Your task to perform on an android device: open app "Spotify" Image 0: 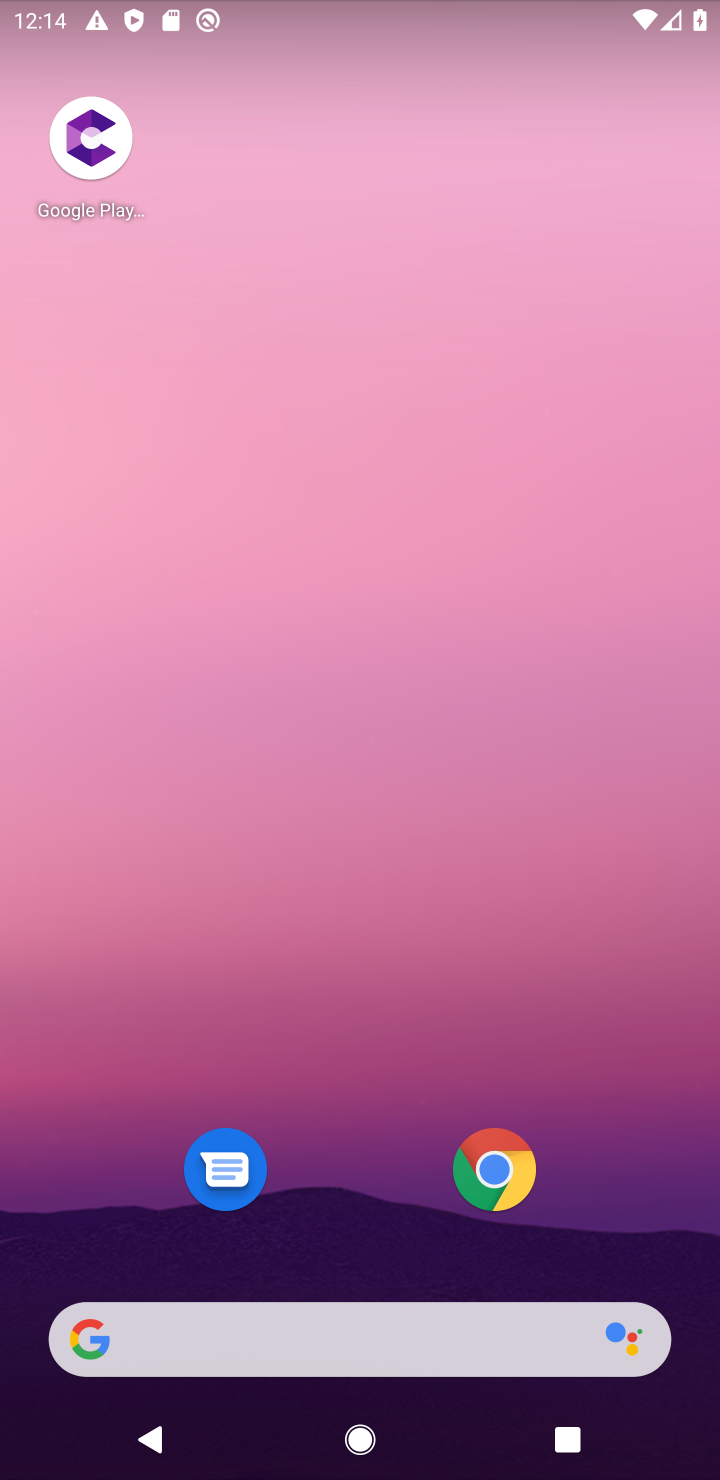
Step 0: drag from (338, 1305) to (340, 325)
Your task to perform on an android device: open app "Spotify" Image 1: 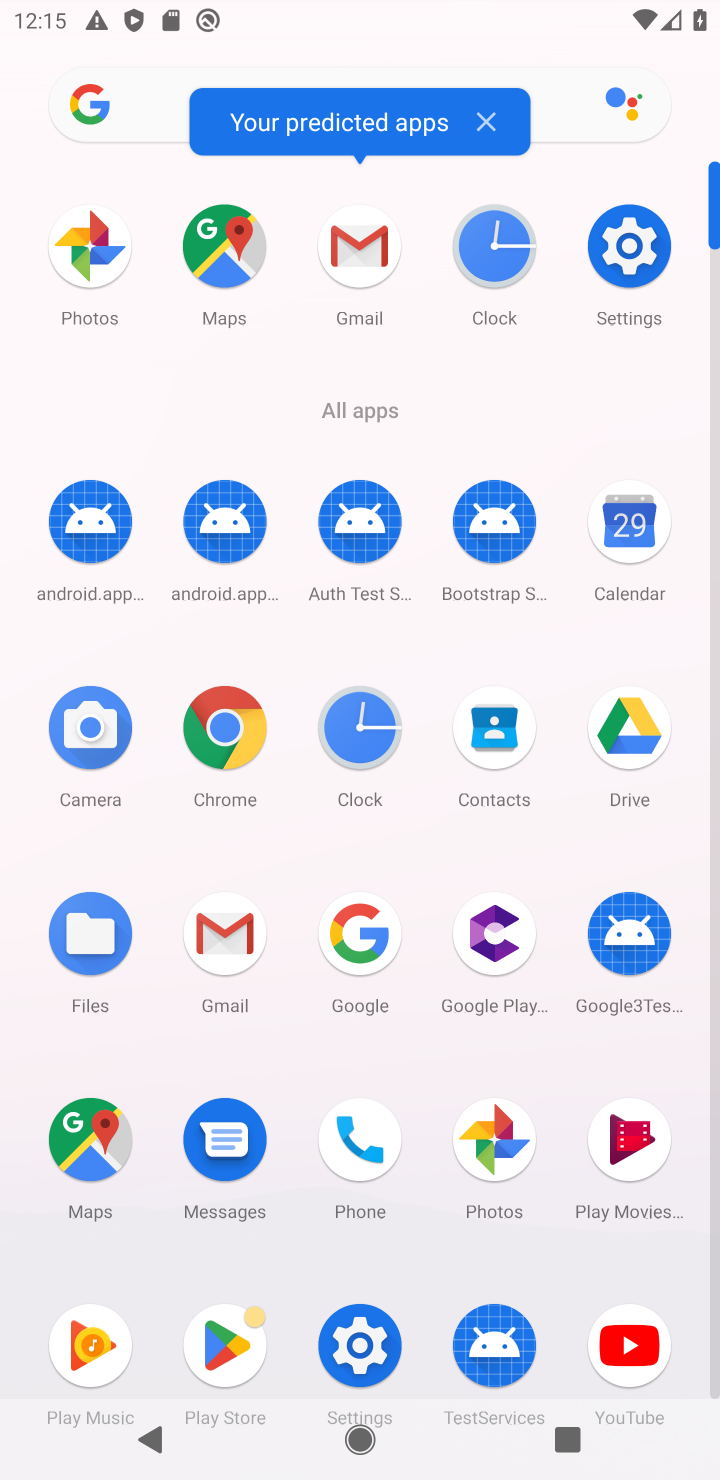
Step 1: click (209, 1359)
Your task to perform on an android device: open app "Spotify" Image 2: 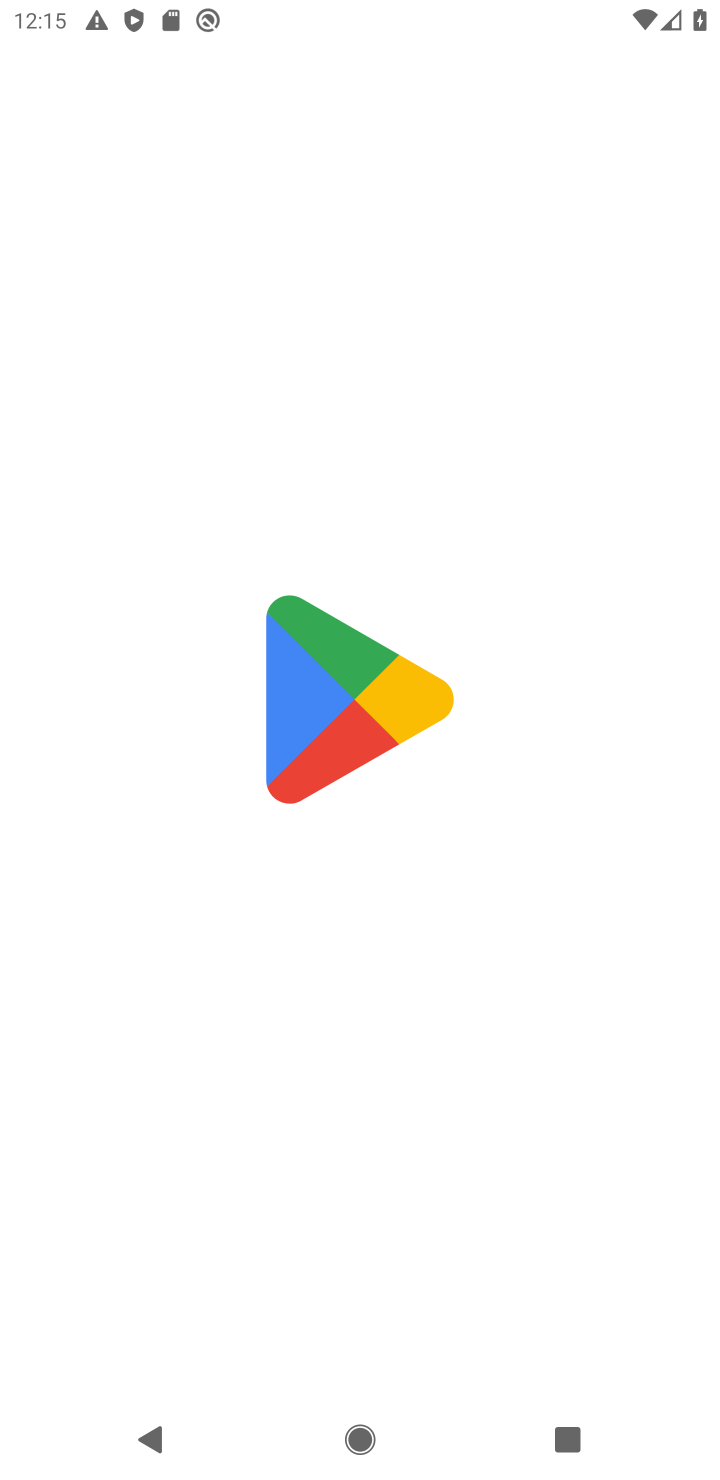
Step 2: click (202, 1347)
Your task to perform on an android device: open app "Spotify" Image 3: 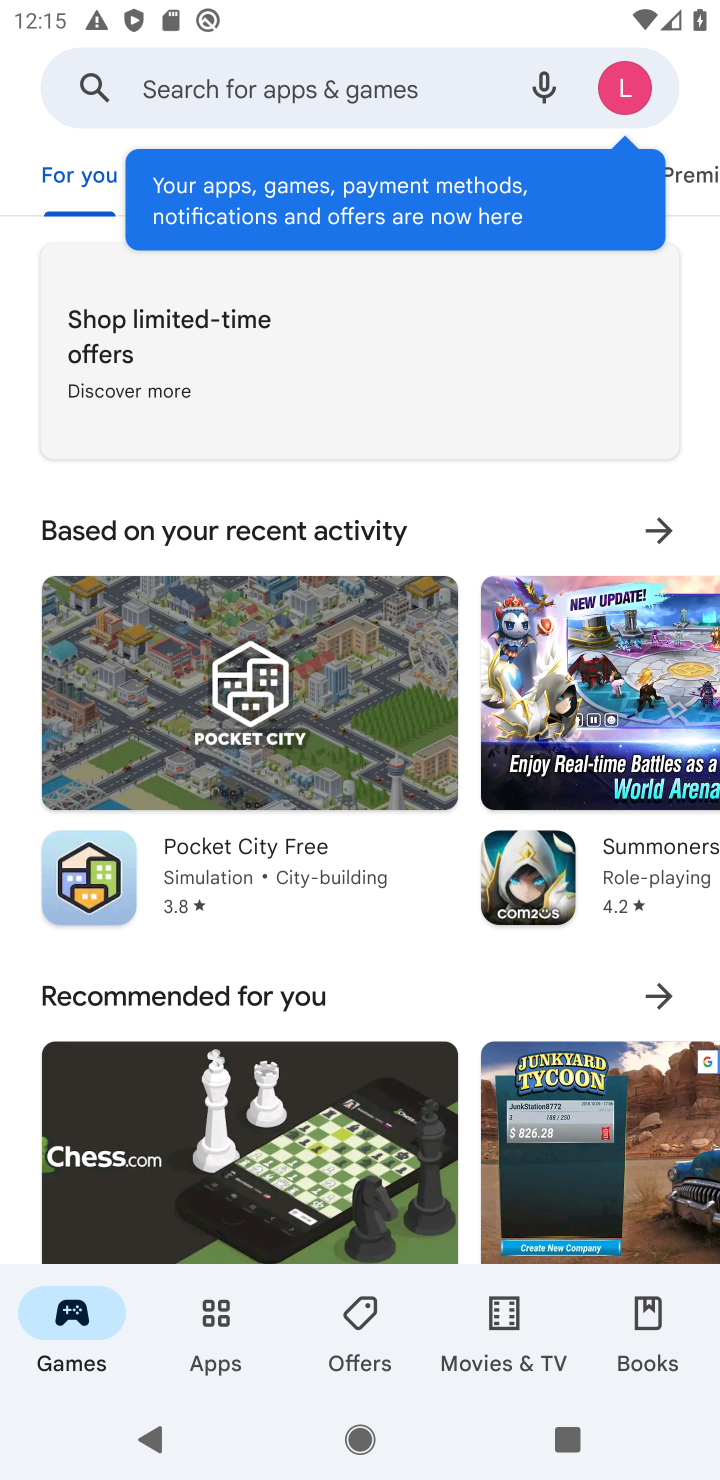
Step 3: click (237, 79)
Your task to perform on an android device: open app "Spotify" Image 4: 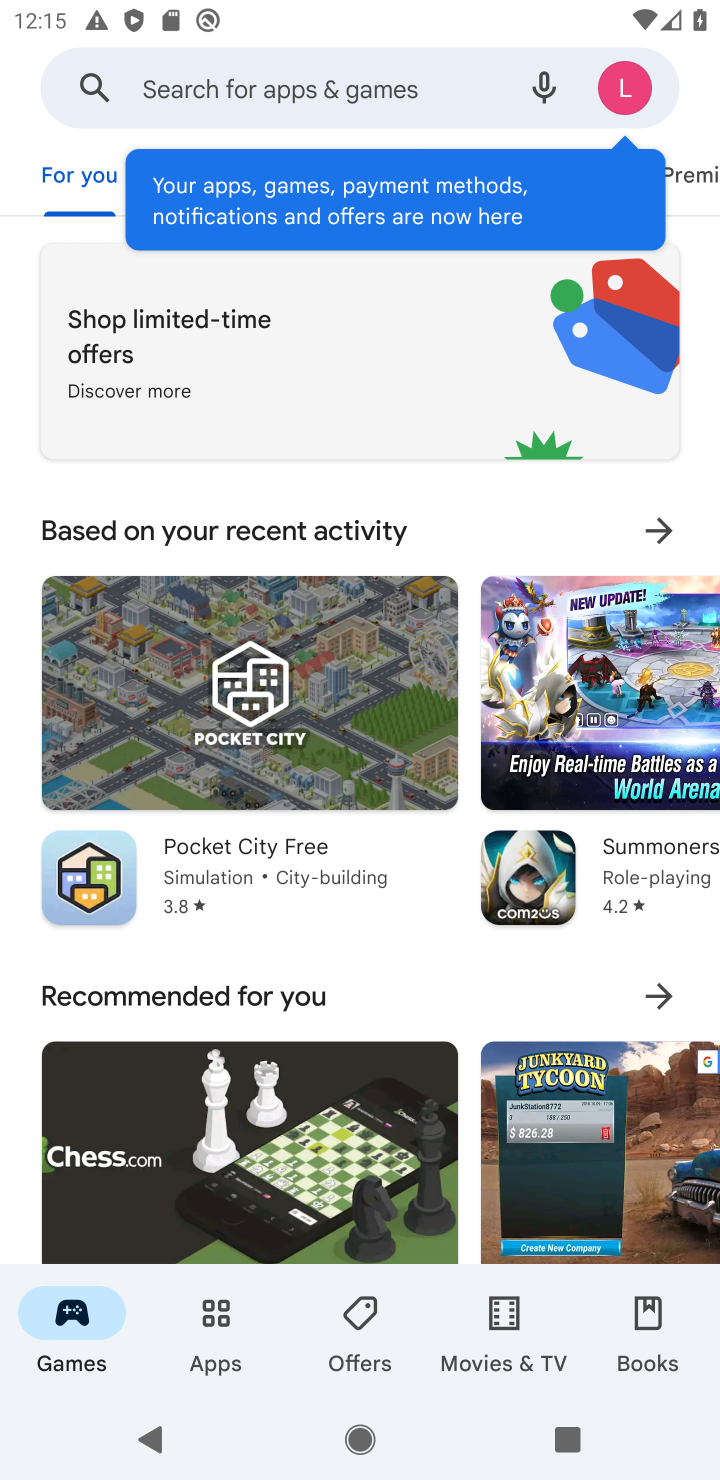
Step 4: click (237, 87)
Your task to perform on an android device: open app "Spotify" Image 5: 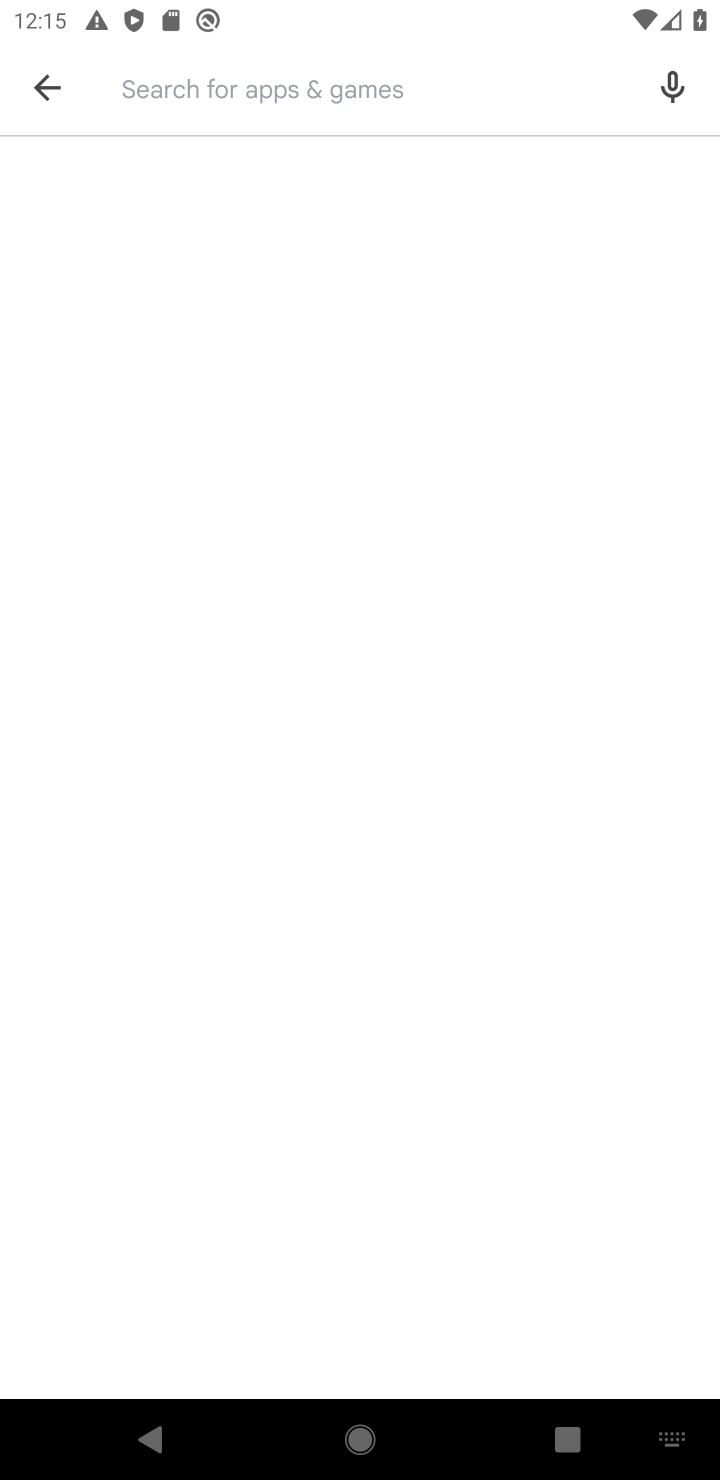
Step 5: type "Spotify"
Your task to perform on an android device: open app "Spotify" Image 6: 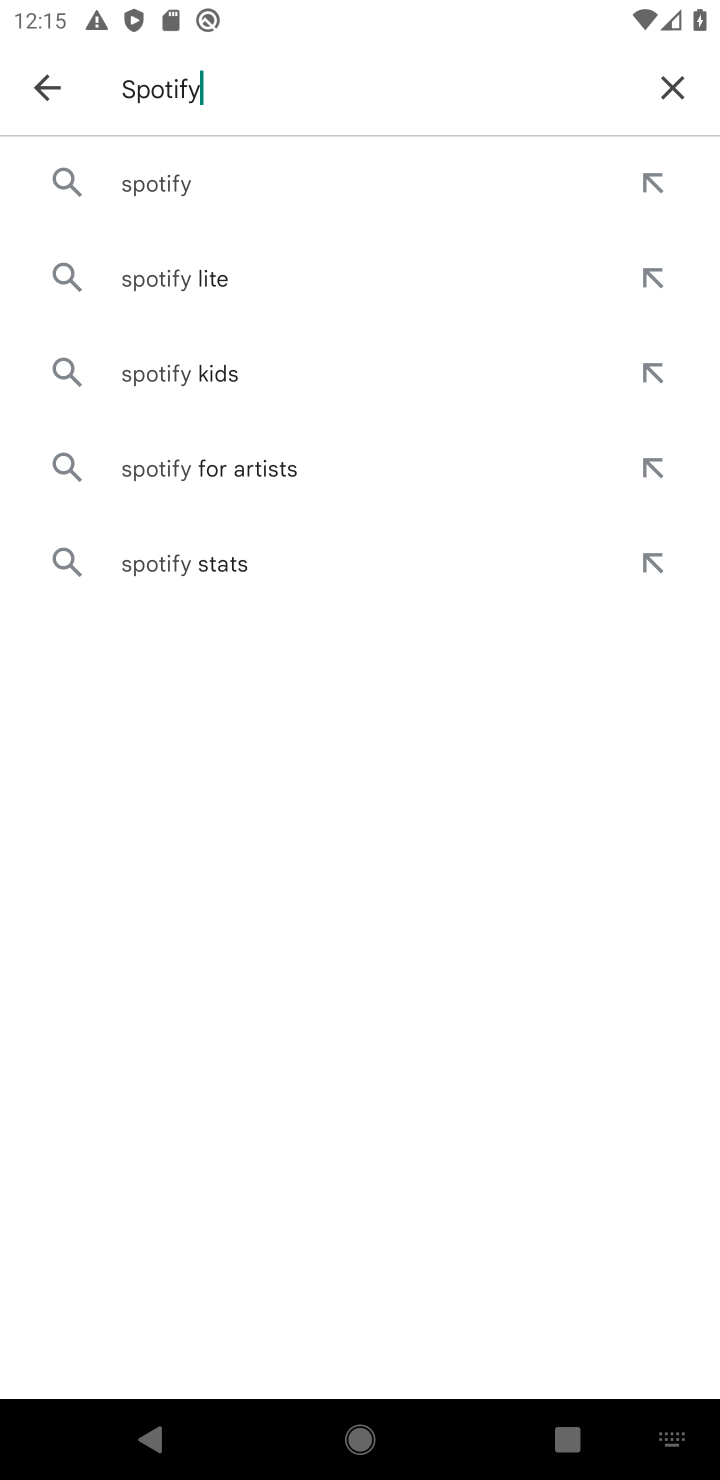
Step 6: click (153, 191)
Your task to perform on an android device: open app "Spotify" Image 7: 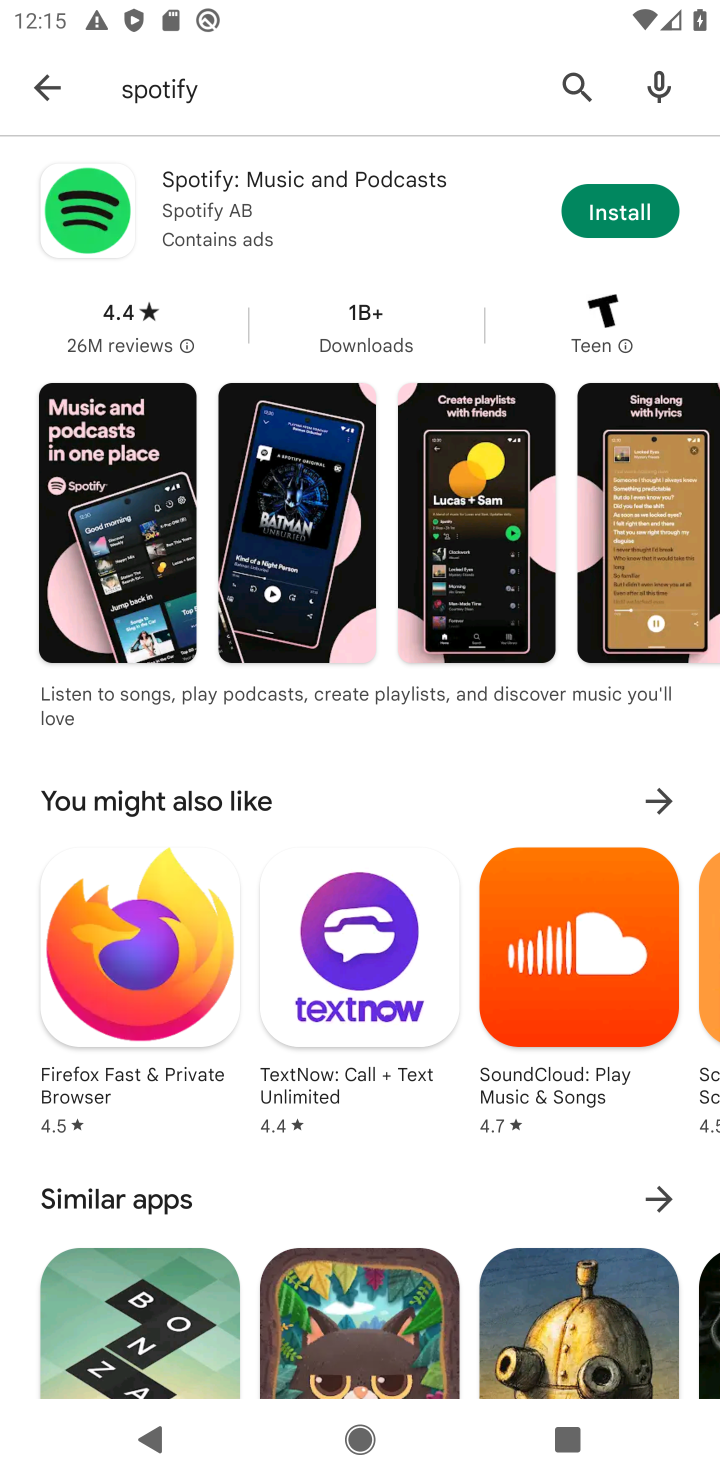
Step 7: click (641, 207)
Your task to perform on an android device: open app "Spotify" Image 8: 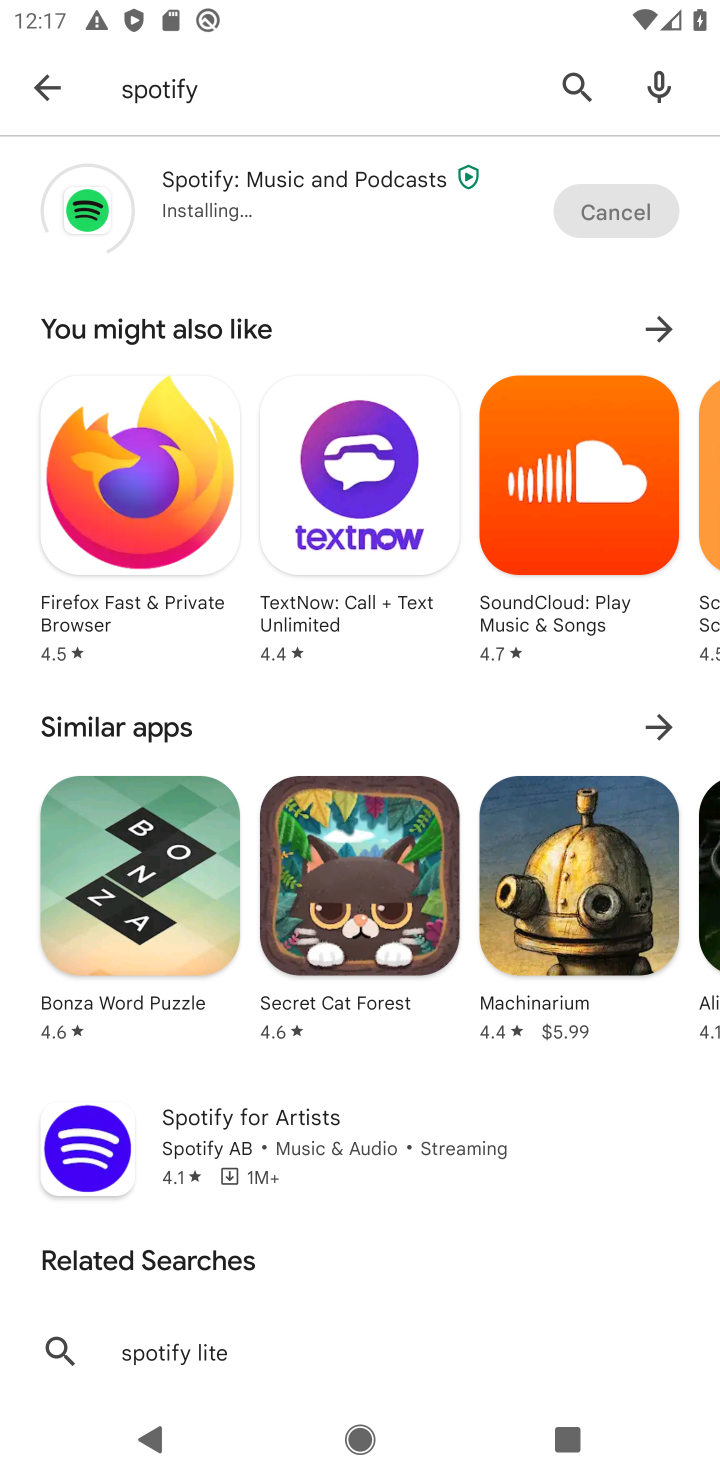
Step 8: task complete